Your task to perform on an android device: See recent photos Image 0: 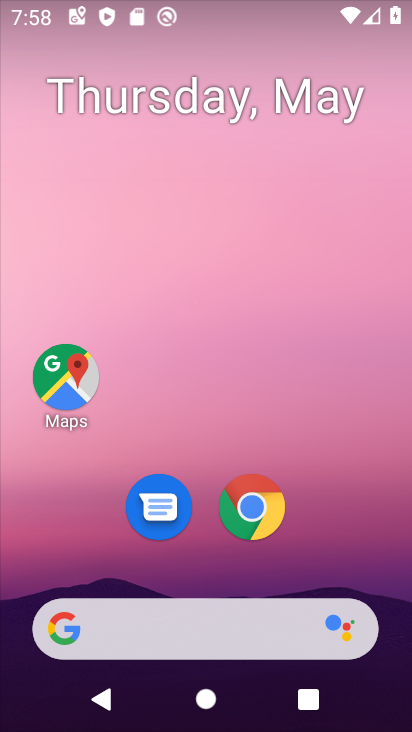
Step 0: drag from (235, 644) to (161, 148)
Your task to perform on an android device: See recent photos Image 1: 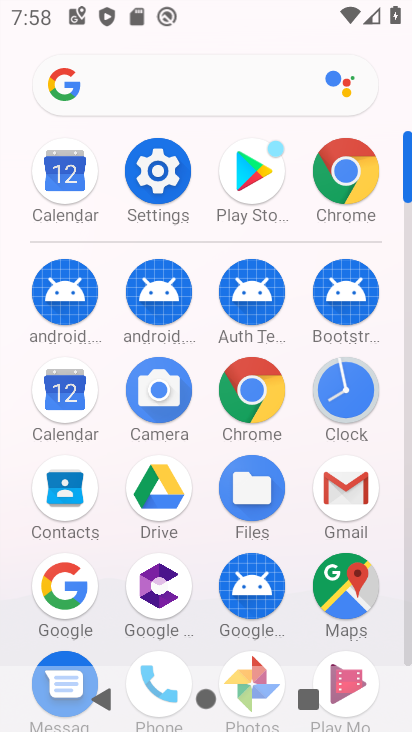
Step 1: click (257, 649)
Your task to perform on an android device: See recent photos Image 2: 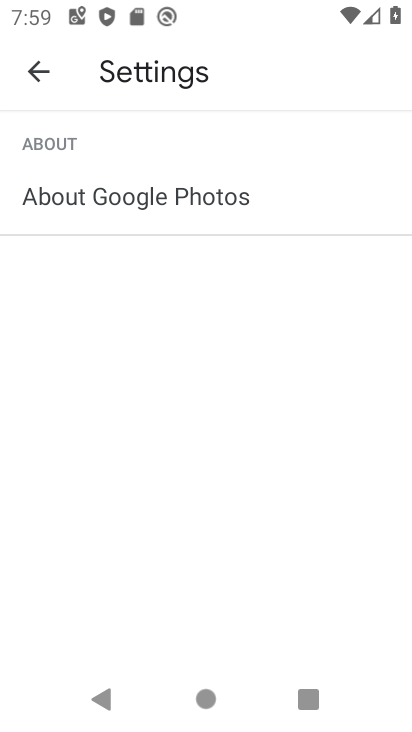
Step 2: click (38, 76)
Your task to perform on an android device: See recent photos Image 3: 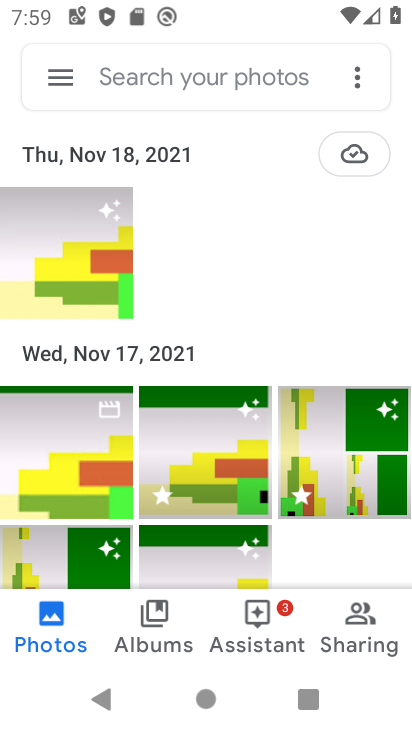
Step 3: task complete